Your task to perform on an android device: toggle data saver in the chrome app Image 0: 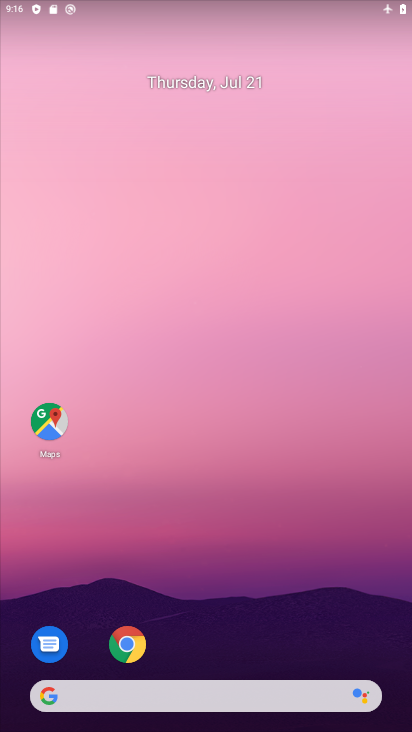
Step 0: drag from (234, 637) to (271, 151)
Your task to perform on an android device: toggle data saver in the chrome app Image 1: 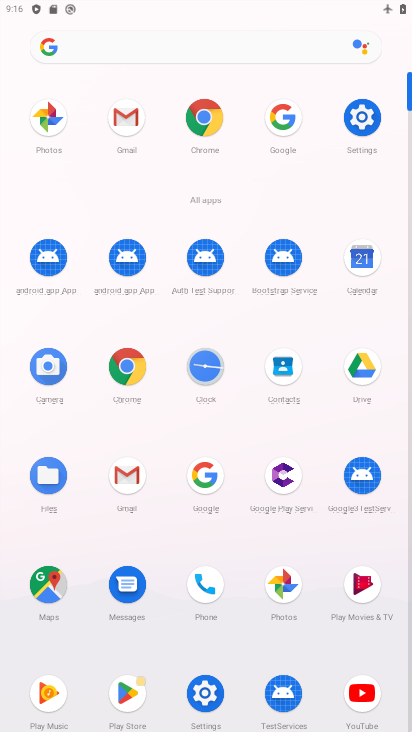
Step 1: click (203, 124)
Your task to perform on an android device: toggle data saver in the chrome app Image 2: 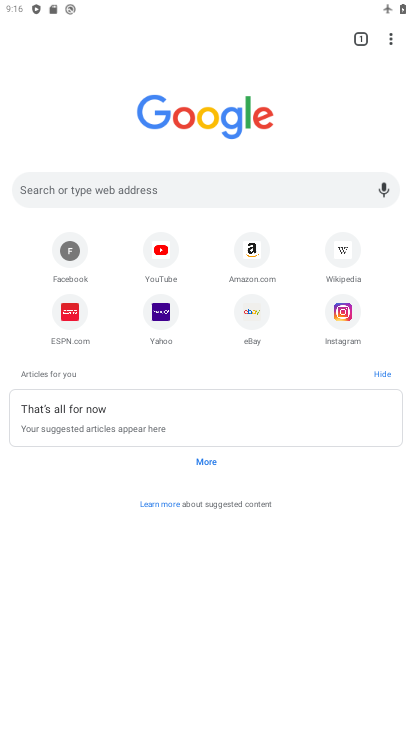
Step 2: click (387, 48)
Your task to perform on an android device: toggle data saver in the chrome app Image 3: 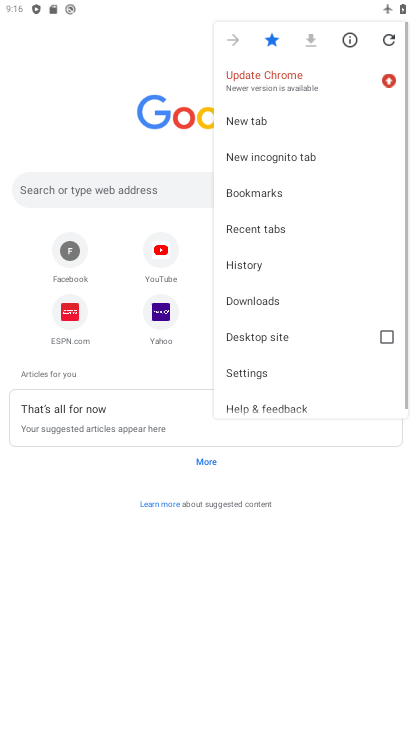
Step 3: click (240, 368)
Your task to perform on an android device: toggle data saver in the chrome app Image 4: 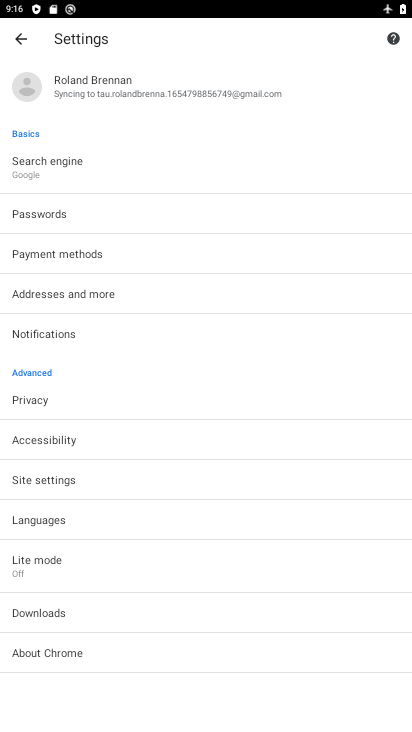
Step 4: click (23, 567)
Your task to perform on an android device: toggle data saver in the chrome app Image 5: 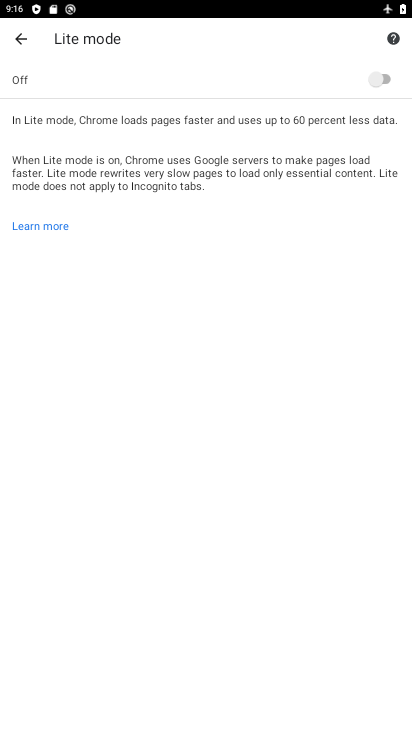
Step 5: click (372, 77)
Your task to perform on an android device: toggle data saver in the chrome app Image 6: 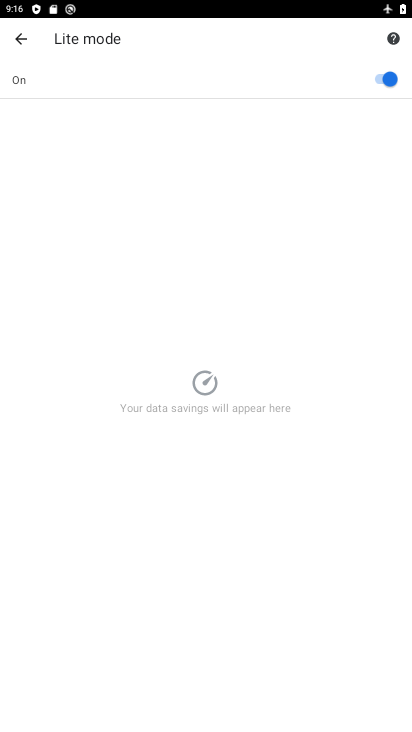
Step 6: task complete